Your task to perform on an android device: find snoozed emails in the gmail app Image 0: 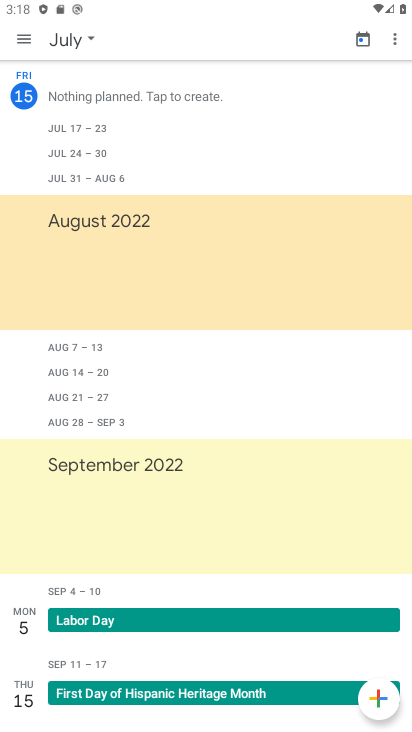
Step 0: press home button
Your task to perform on an android device: find snoozed emails in the gmail app Image 1: 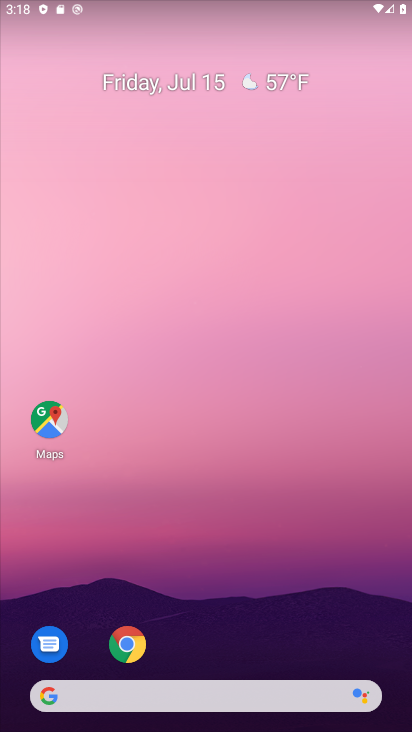
Step 1: drag from (187, 648) to (251, 298)
Your task to perform on an android device: find snoozed emails in the gmail app Image 2: 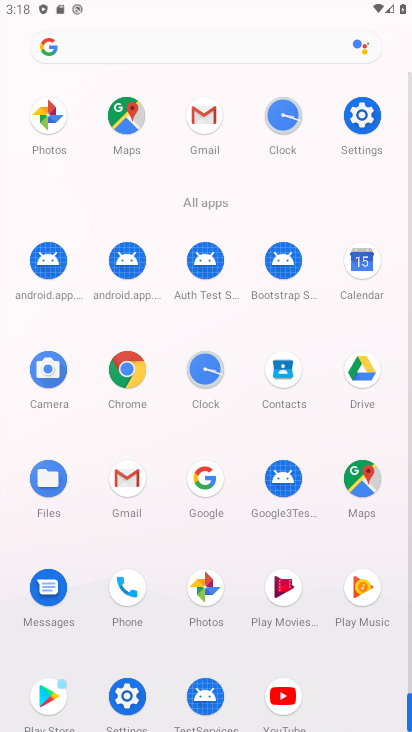
Step 2: click (121, 495)
Your task to perform on an android device: find snoozed emails in the gmail app Image 3: 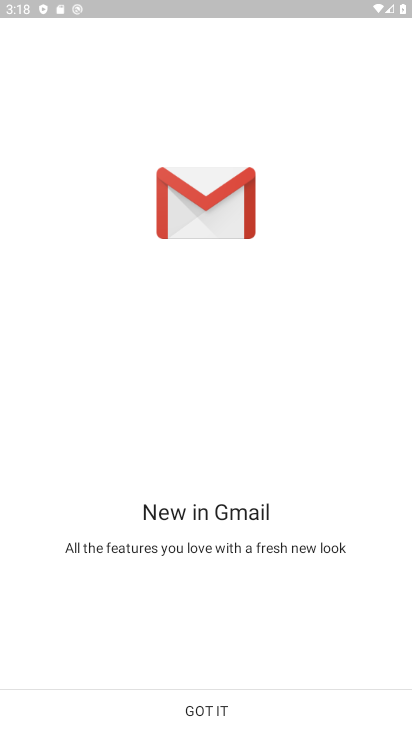
Step 3: click (227, 716)
Your task to perform on an android device: find snoozed emails in the gmail app Image 4: 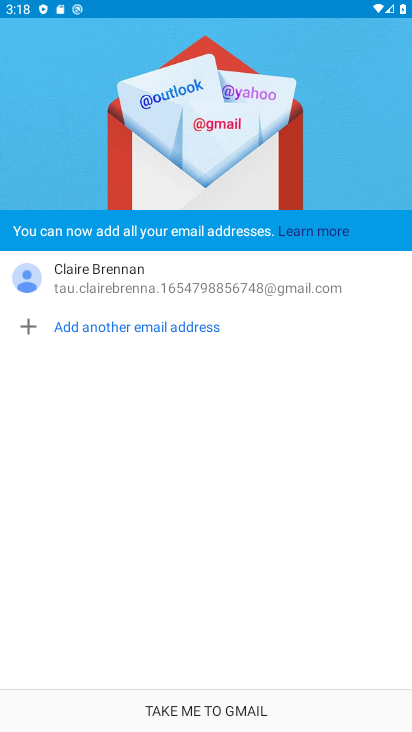
Step 4: click (236, 720)
Your task to perform on an android device: find snoozed emails in the gmail app Image 5: 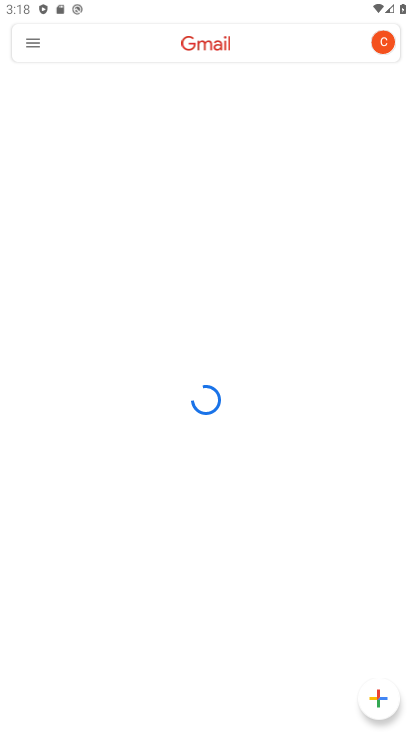
Step 5: click (52, 44)
Your task to perform on an android device: find snoozed emails in the gmail app Image 6: 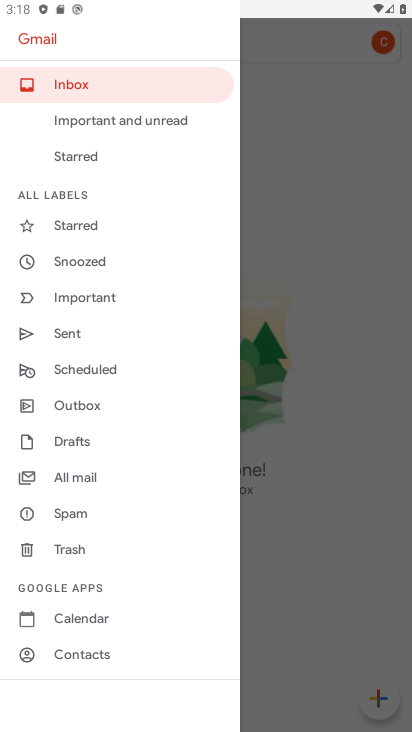
Step 6: click (114, 274)
Your task to perform on an android device: find snoozed emails in the gmail app Image 7: 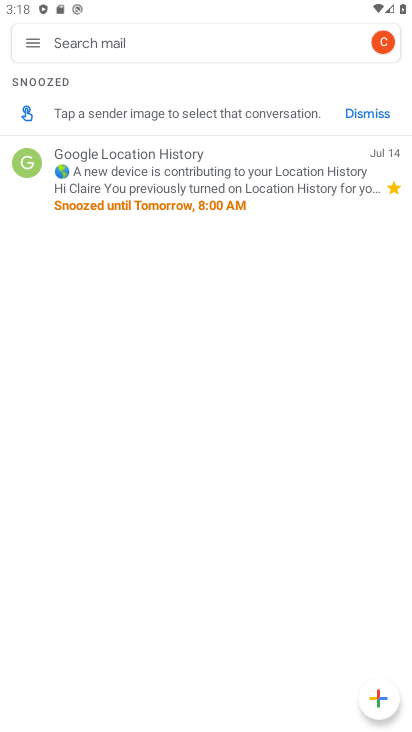
Step 7: task complete